Your task to perform on an android device: turn on translation in the chrome app Image 0: 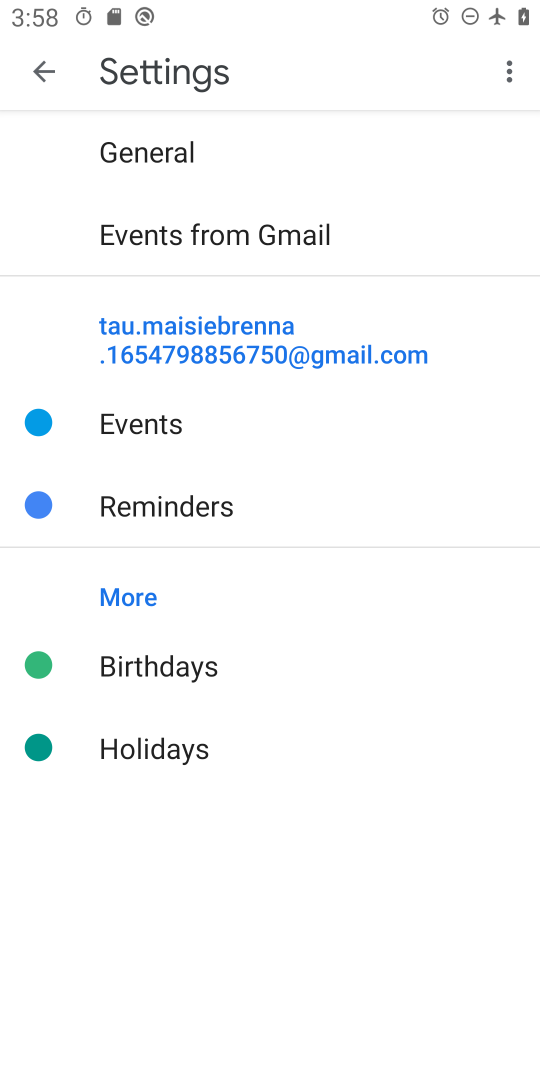
Step 0: press home button
Your task to perform on an android device: turn on translation in the chrome app Image 1: 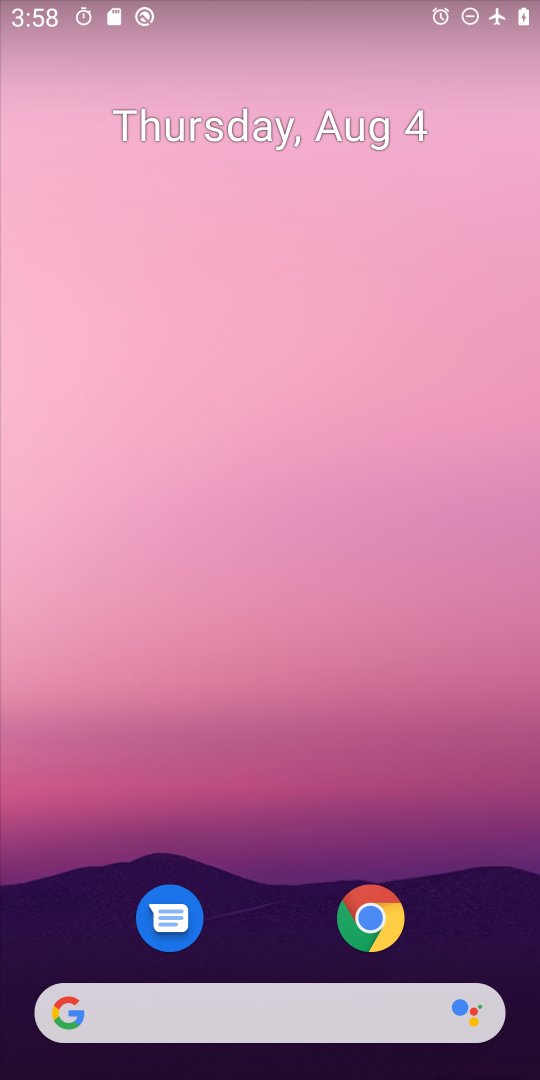
Step 1: click (370, 895)
Your task to perform on an android device: turn on translation in the chrome app Image 2: 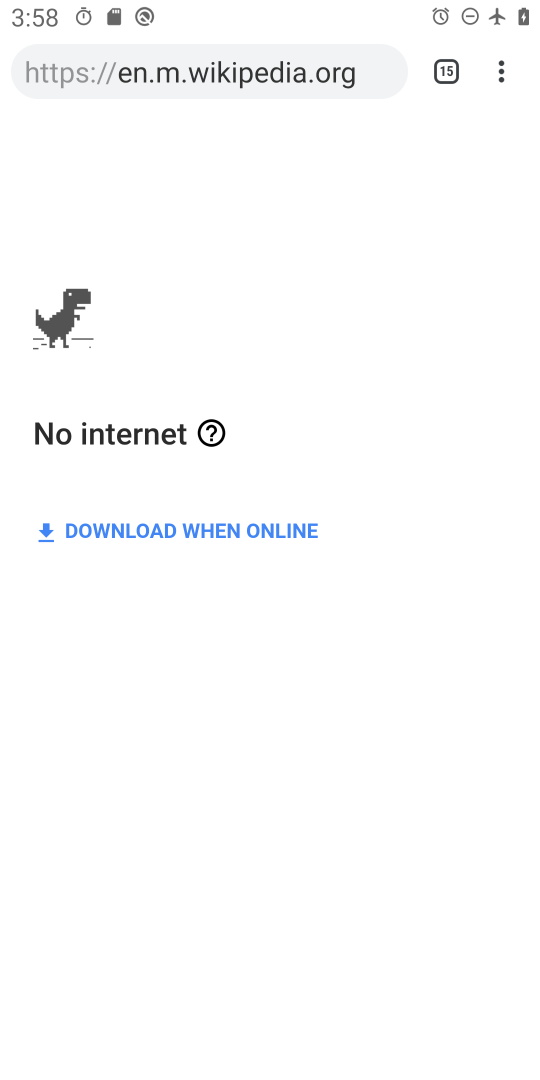
Step 2: click (506, 71)
Your task to perform on an android device: turn on translation in the chrome app Image 3: 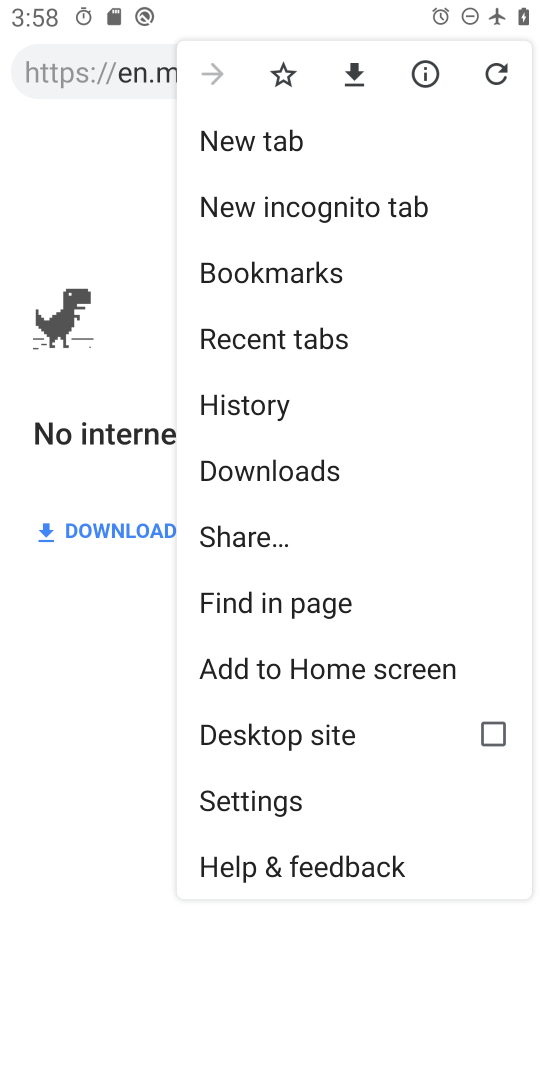
Step 3: click (280, 792)
Your task to perform on an android device: turn on translation in the chrome app Image 4: 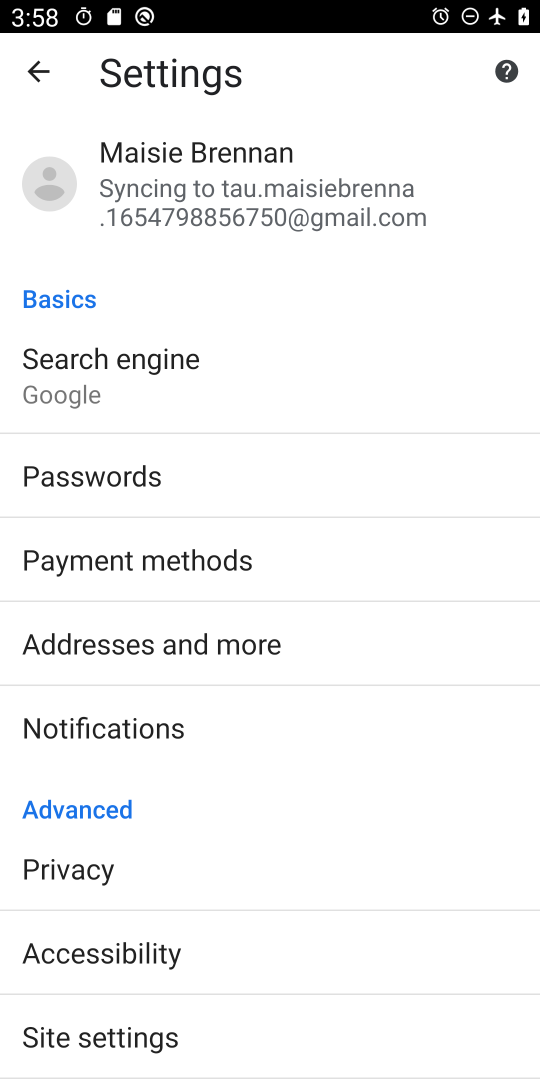
Step 4: drag from (221, 941) to (317, 565)
Your task to perform on an android device: turn on translation in the chrome app Image 5: 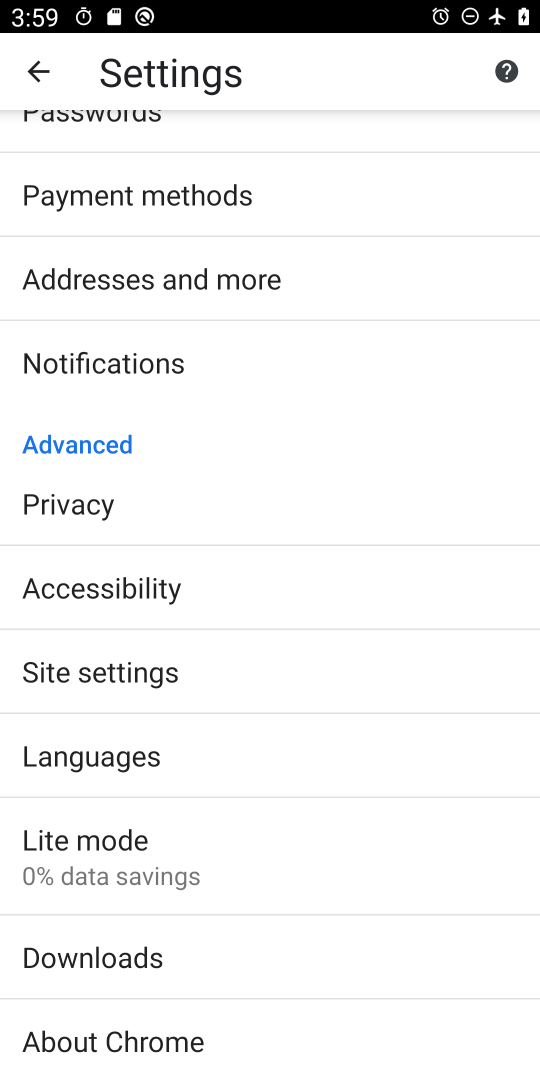
Step 5: press home button
Your task to perform on an android device: turn on translation in the chrome app Image 6: 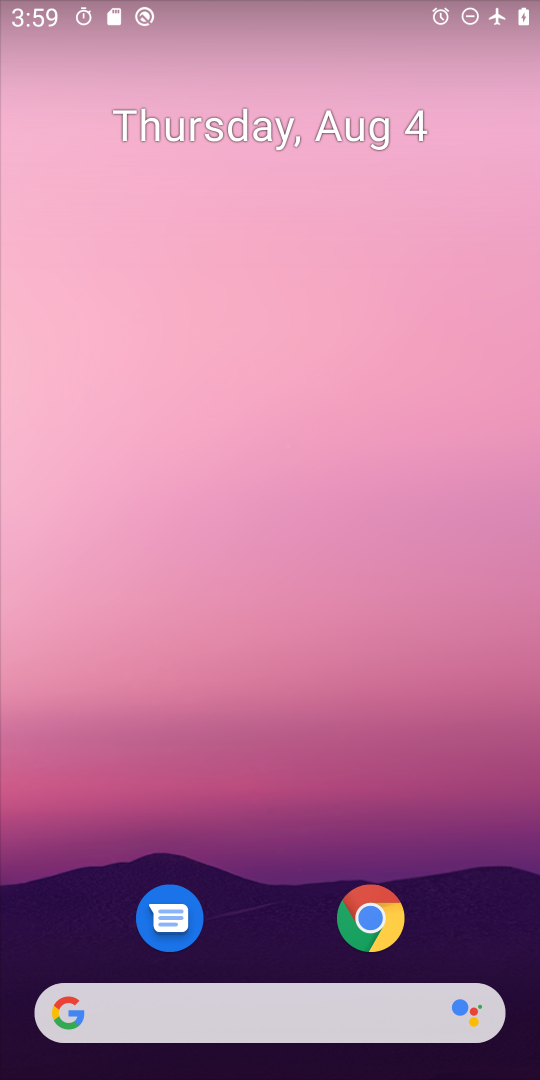
Step 6: click (389, 929)
Your task to perform on an android device: turn on translation in the chrome app Image 7: 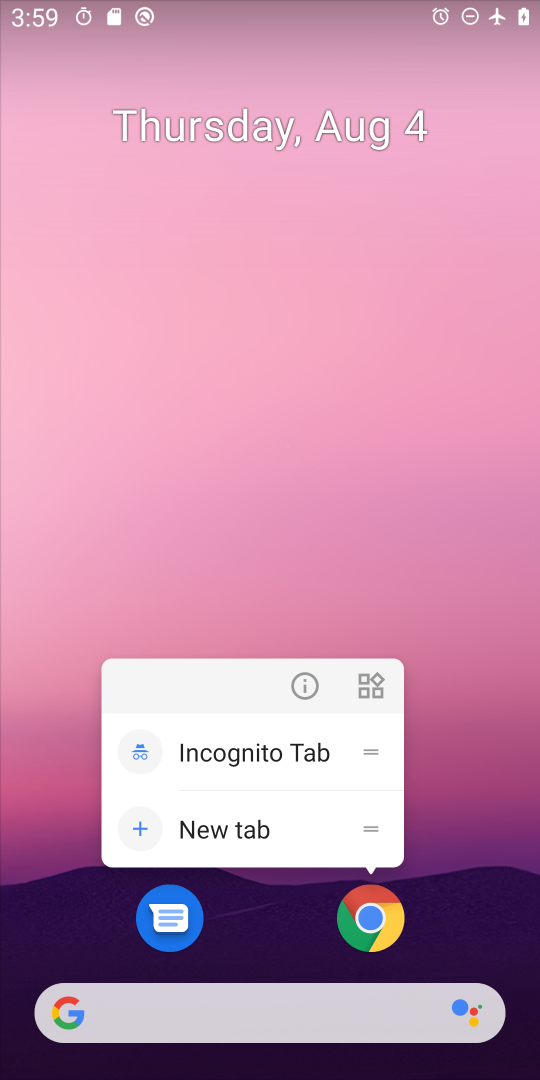
Step 7: click (390, 936)
Your task to perform on an android device: turn on translation in the chrome app Image 8: 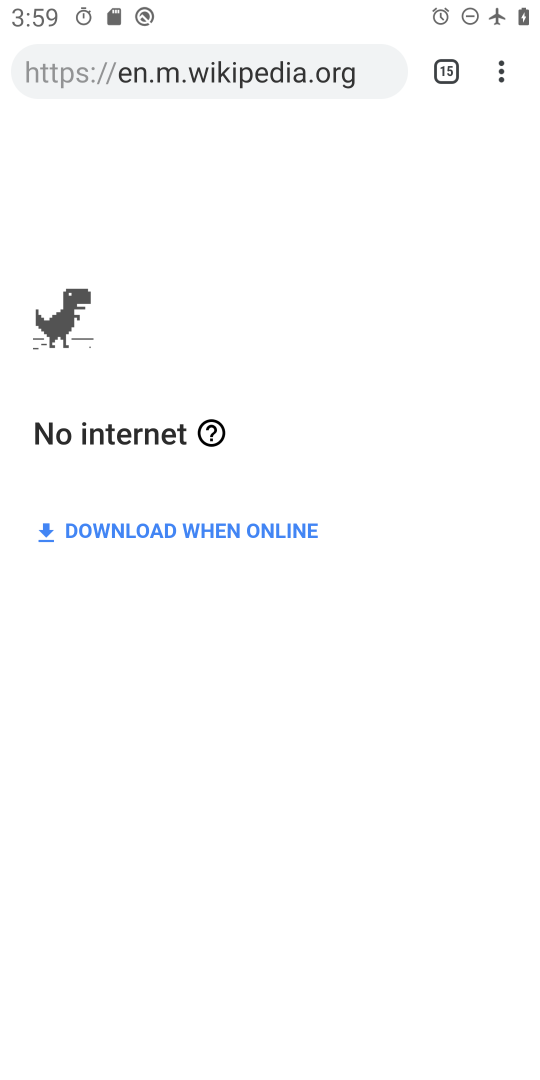
Step 8: click (485, 74)
Your task to perform on an android device: turn on translation in the chrome app Image 9: 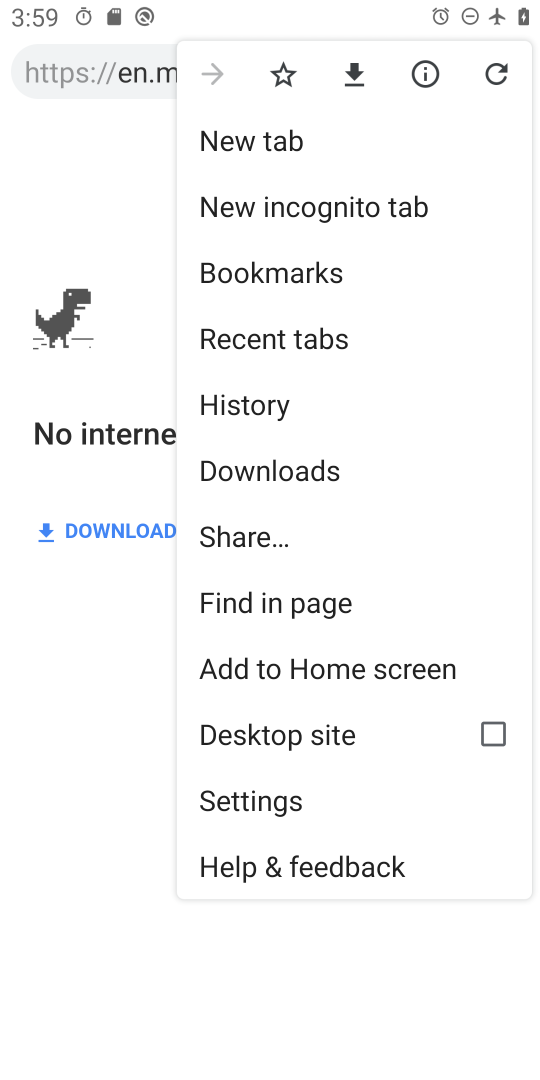
Step 9: click (257, 811)
Your task to perform on an android device: turn on translation in the chrome app Image 10: 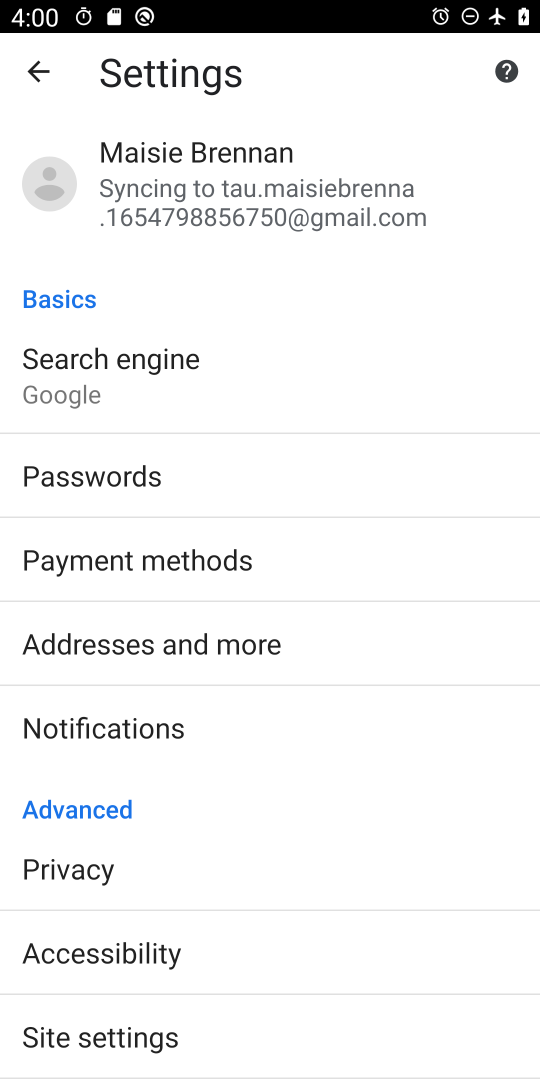
Step 10: drag from (219, 1008) to (258, 537)
Your task to perform on an android device: turn on translation in the chrome app Image 11: 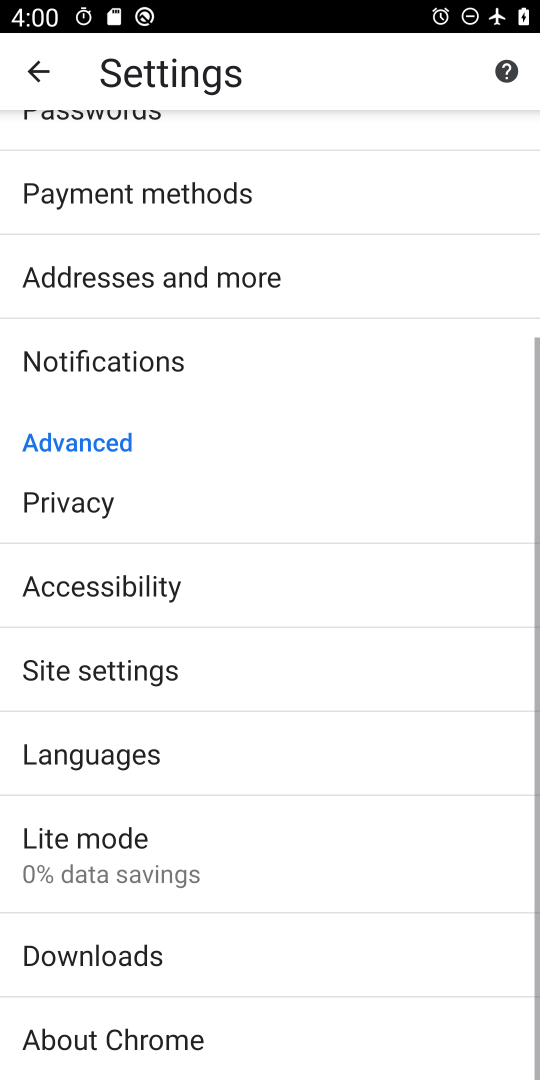
Step 11: click (169, 753)
Your task to perform on an android device: turn on translation in the chrome app Image 12: 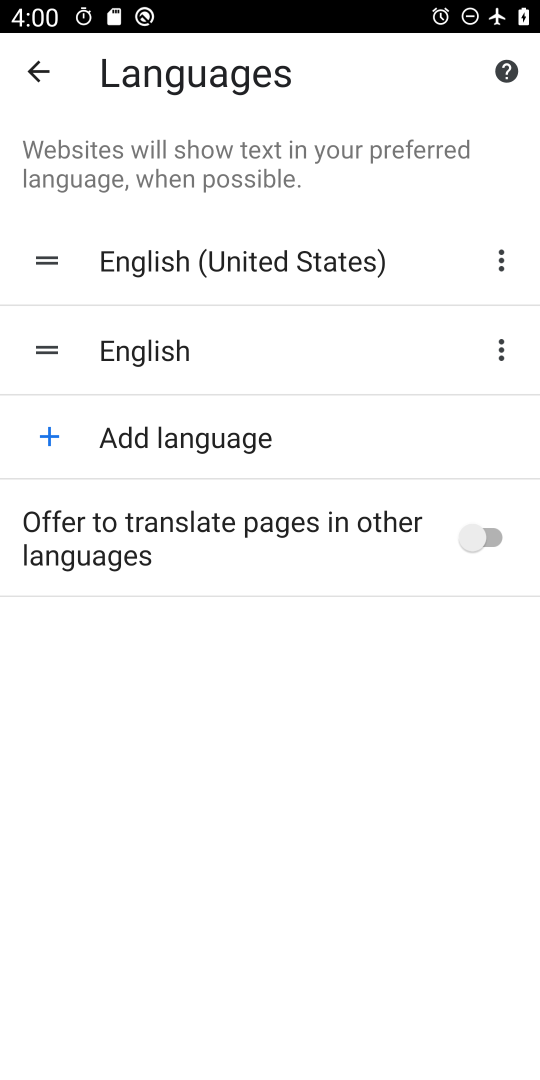
Step 12: click (488, 554)
Your task to perform on an android device: turn on translation in the chrome app Image 13: 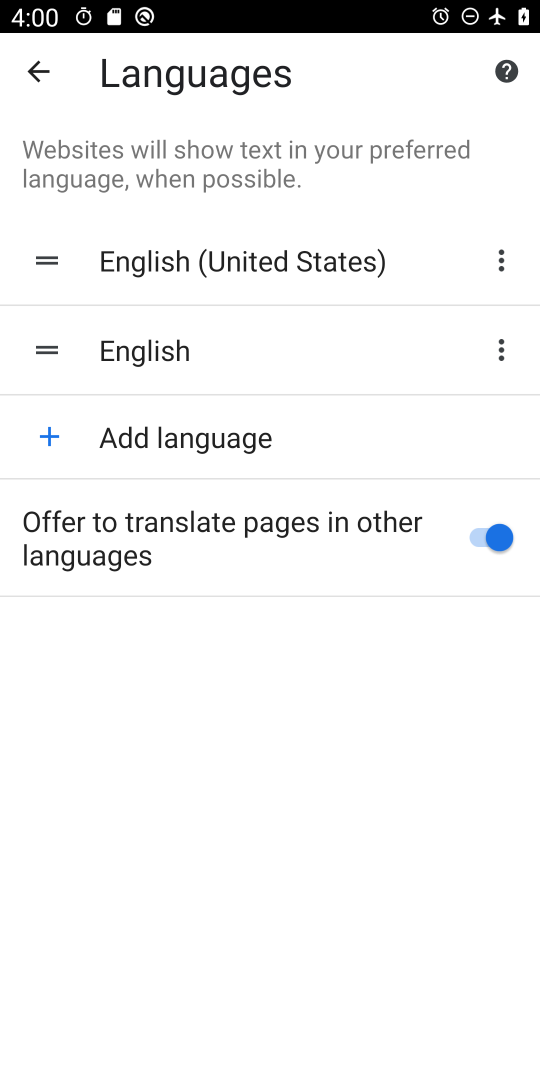
Step 13: task complete